Your task to perform on an android device: Go to battery settings Image 0: 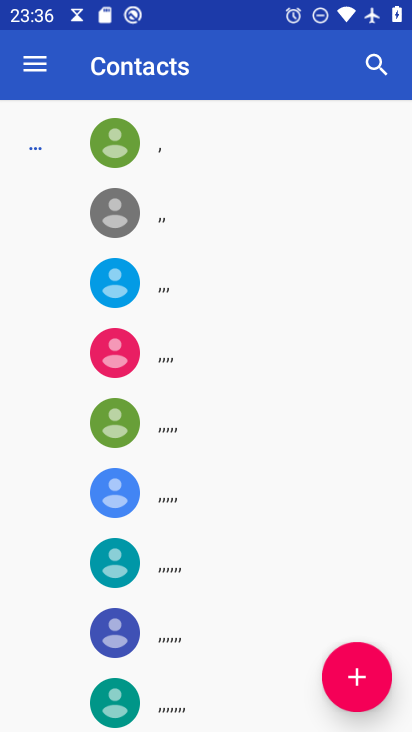
Step 0: press home button
Your task to perform on an android device: Go to battery settings Image 1: 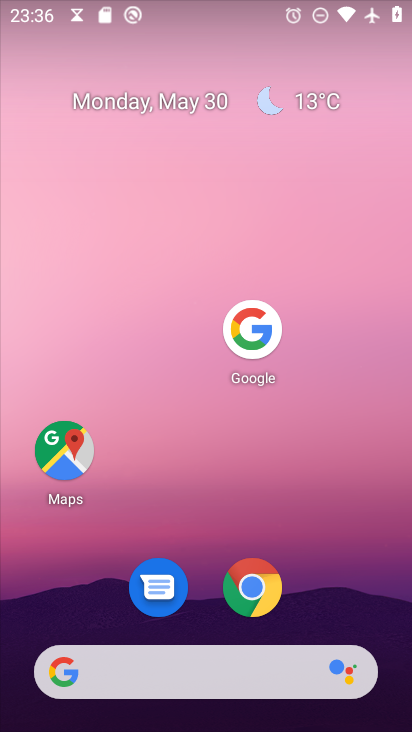
Step 1: drag from (172, 676) to (329, 186)
Your task to perform on an android device: Go to battery settings Image 2: 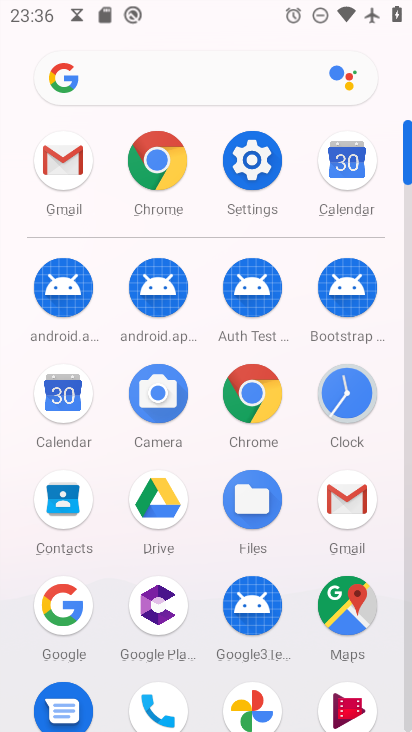
Step 2: click (244, 170)
Your task to perform on an android device: Go to battery settings Image 3: 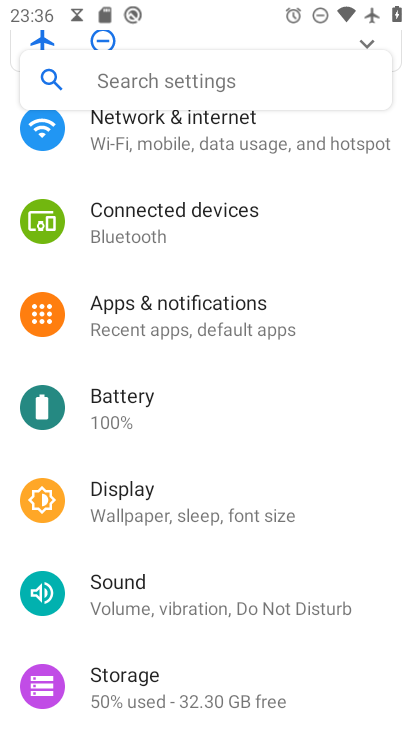
Step 3: click (128, 403)
Your task to perform on an android device: Go to battery settings Image 4: 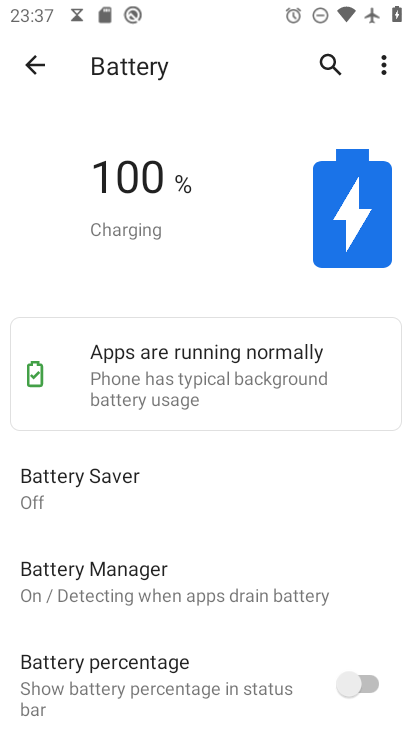
Step 4: task complete